Your task to perform on an android device: change notifications settings Image 0: 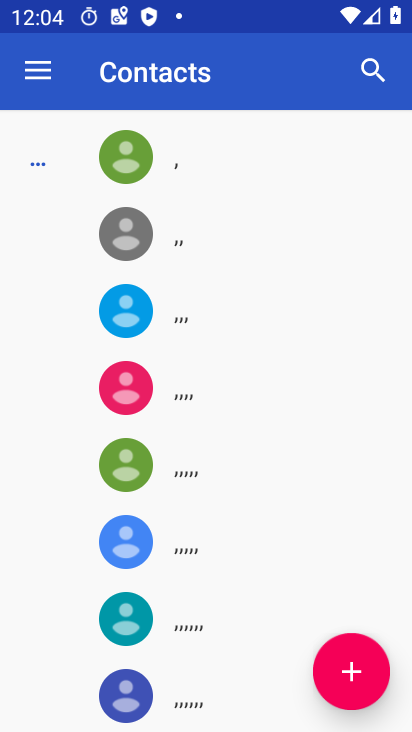
Step 0: press home button
Your task to perform on an android device: change notifications settings Image 1: 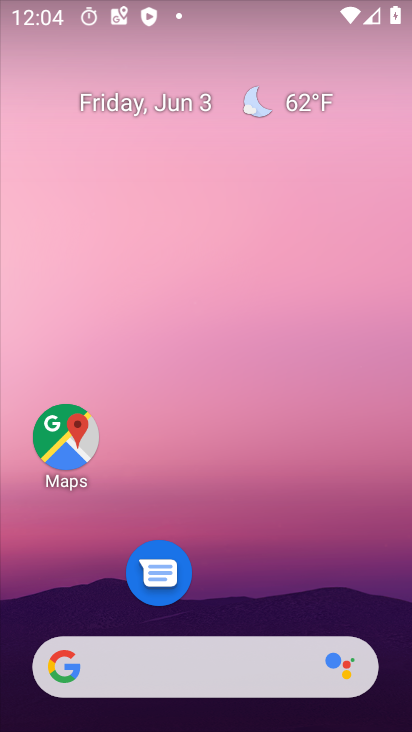
Step 1: drag from (352, 638) to (372, 190)
Your task to perform on an android device: change notifications settings Image 2: 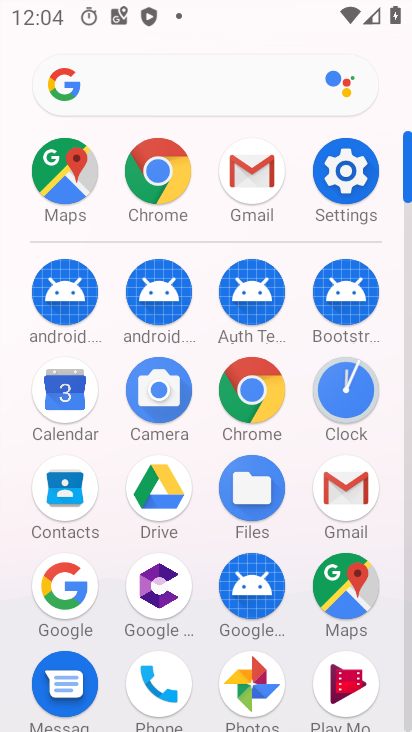
Step 2: click (344, 164)
Your task to perform on an android device: change notifications settings Image 3: 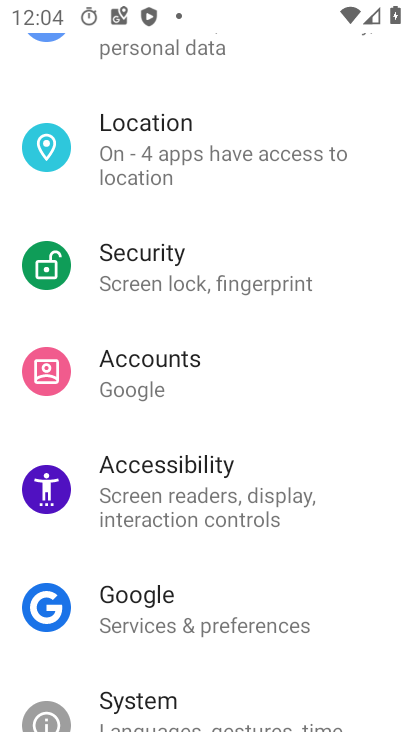
Step 3: drag from (334, 168) to (307, 657)
Your task to perform on an android device: change notifications settings Image 4: 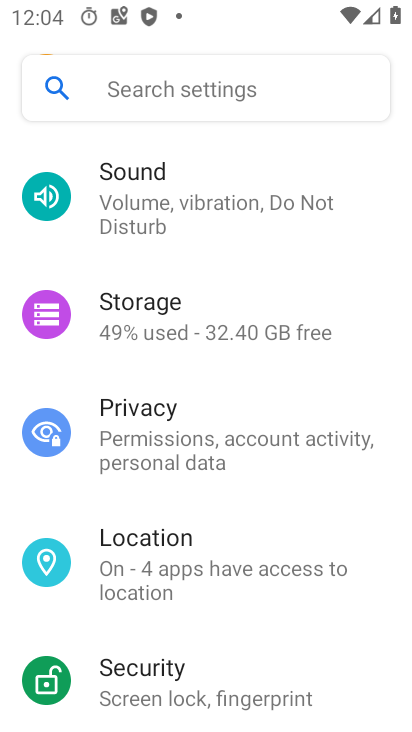
Step 4: drag from (206, 245) to (238, 718)
Your task to perform on an android device: change notifications settings Image 5: 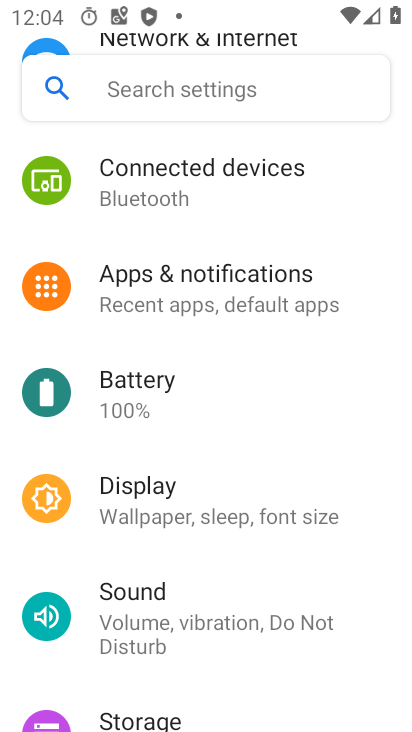
Step 5: click (202, 300)
Your task to perform on an android device: change notifications settings Image 6: 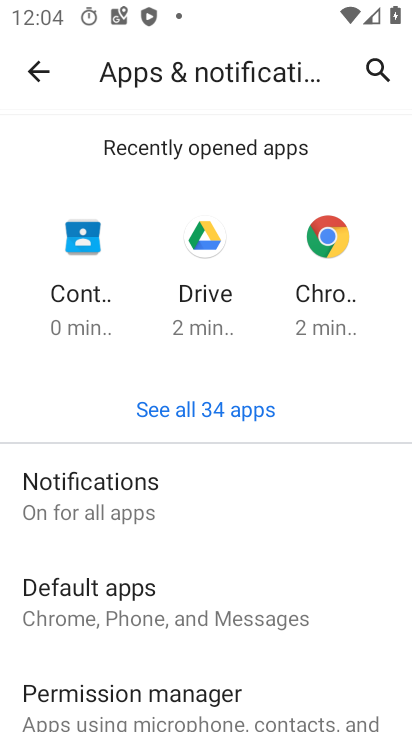
Step 6: click (164, 509)
Your task to perform on an android device: change notifications settings Image 7: 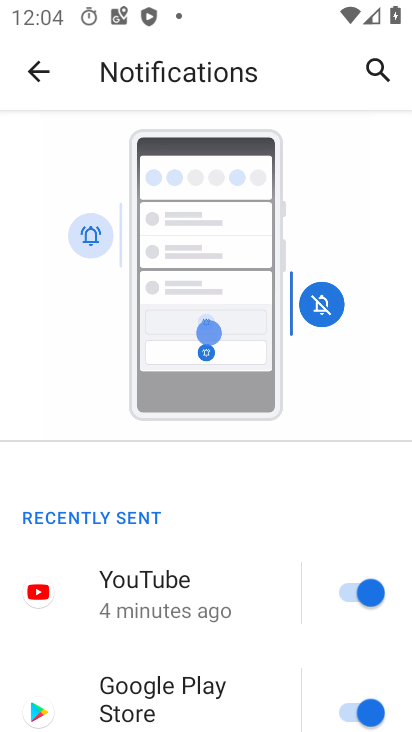
Step 7: click (349, 597)
Your task to perform on an android device: change notifications settings Image 8: 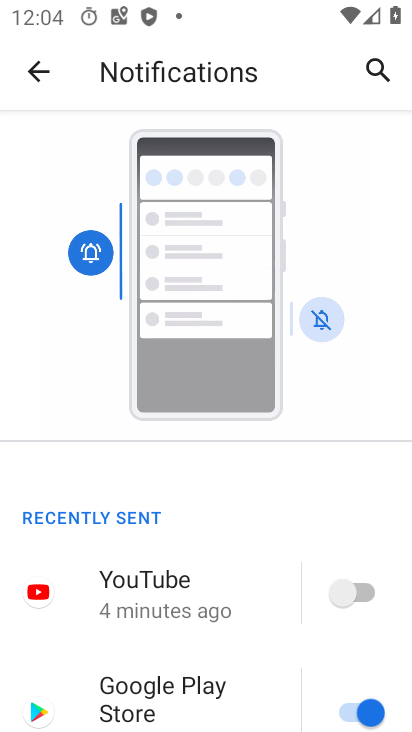
Step 8: task complete